Your task to perform on an android device: Toggle the flashlight Image 0: 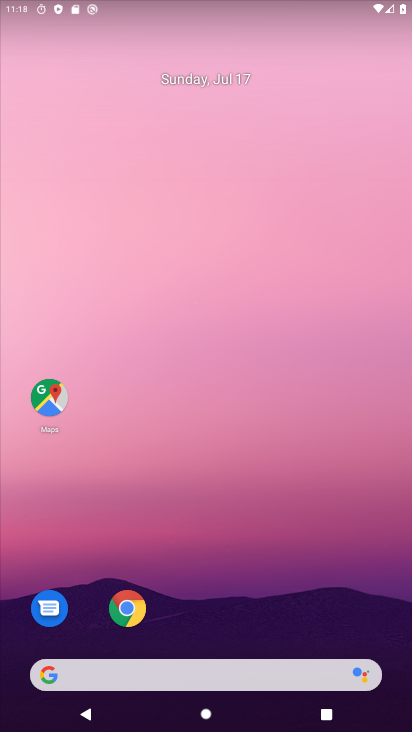
Step 0: drag from (294, 600) to (285, 104)
Your task to perform on an android device: Toggle the flashlight Image 1: 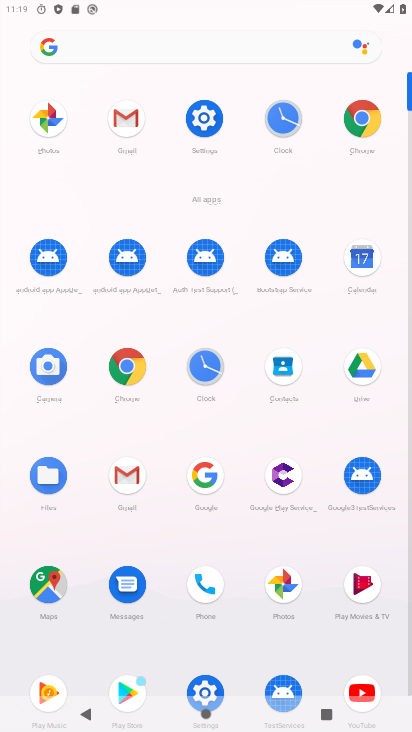
Step 1: click (200, 117)
Your task to perform on an android device: Toggle the flashlight Image 2: 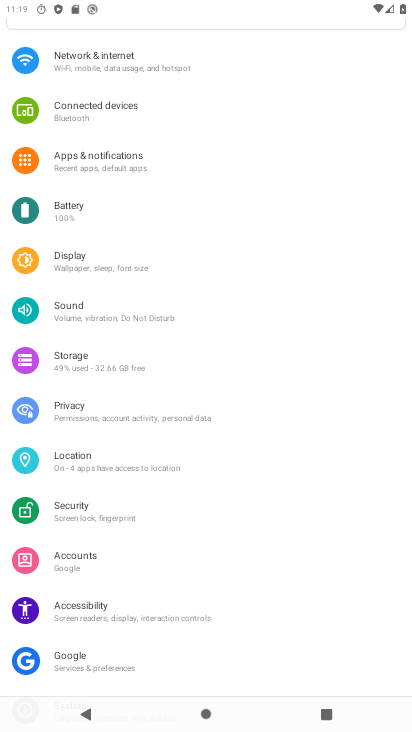
Step 2: task complete